Your task to perform on an android device: change alarm snooze length Image 0: 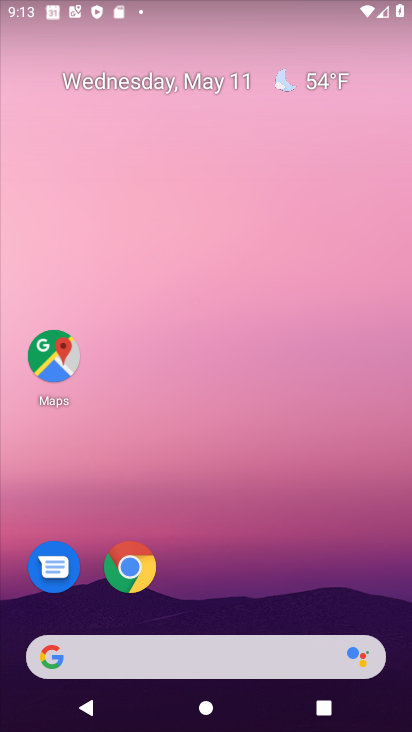
Step 0: drag from (224, 601) to (257, 187)
Your task to perform on an android device: change alarm snooze length Image 1: 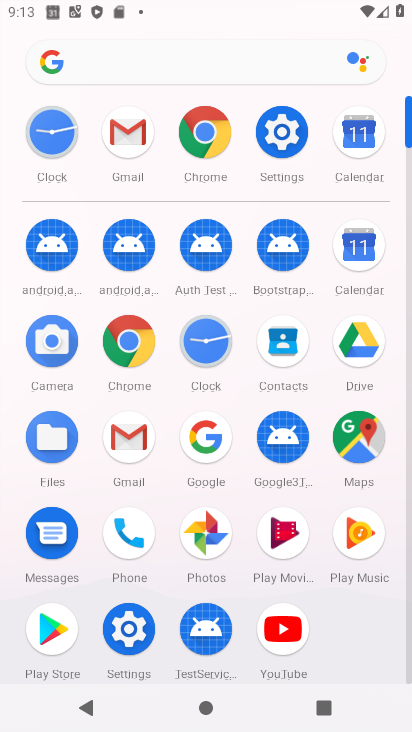
Step 1: click (214, 344)
Your task to perform on an android device: change alarm snooze length Image 2: 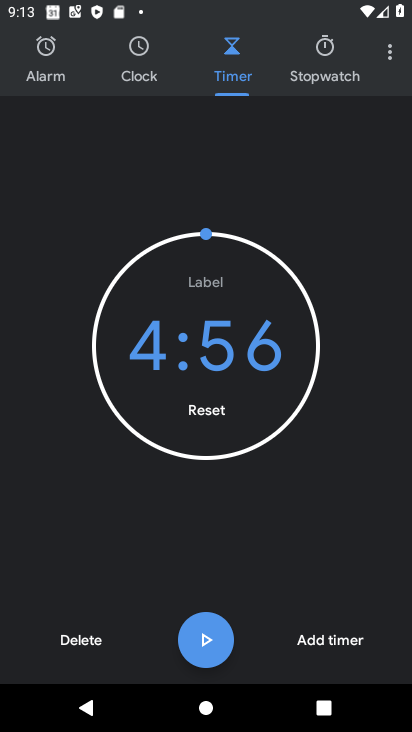
Step 2: click (383, 59)
Your task to perform on an android device: change alarm snooze length Image 3: 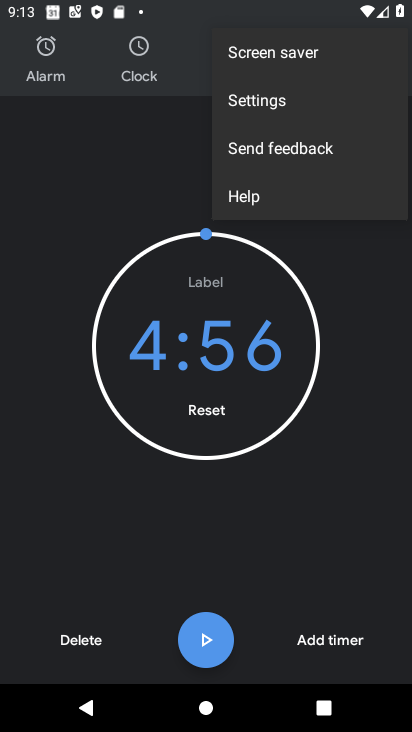
Step 3: click (258, 98)
Your task to perform on an android device: change alarm snooze length Image 4: 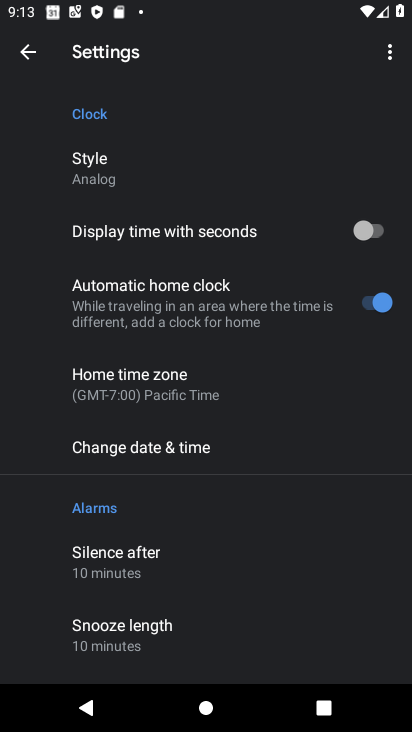
Step 4: drag from (129, 540) to (216, 254)
Your task to perform on an android device: change alarm snooze length Image 5: 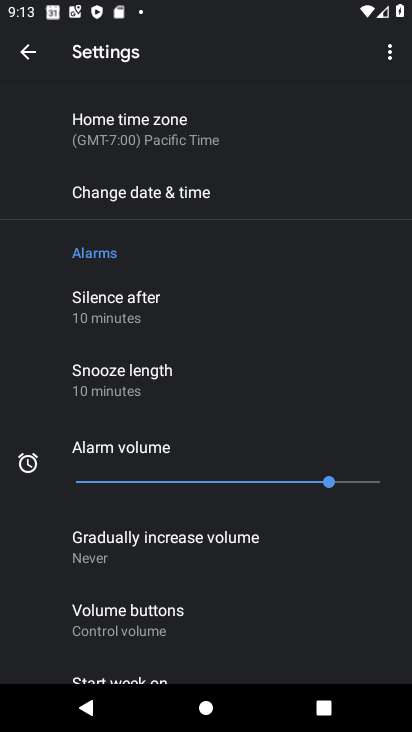
Step 5: drag from (149, 480) to (178, 381)
Your task to perform on an android device: change alarm snooze length Image 6: 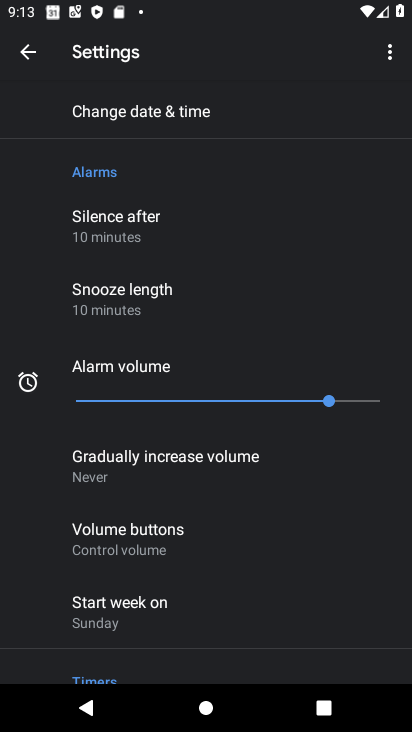
Step 6: click (120, 310)
Your task to perform on an android device: change alarm snooze length Image 7: 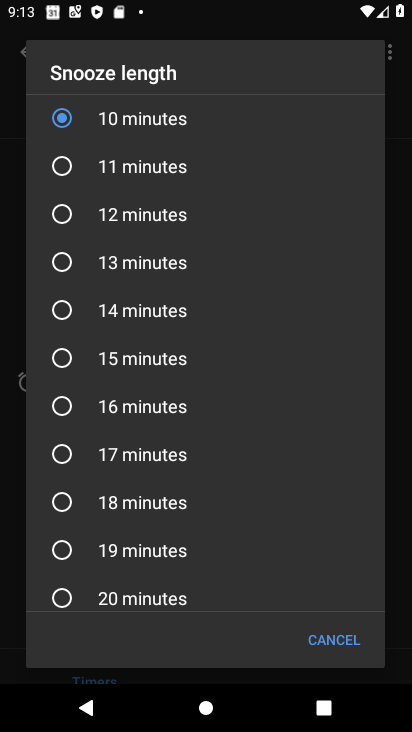
Step 7: click (53, 417)
Your task to perform on an android device: change alarm snooze length Image 8: 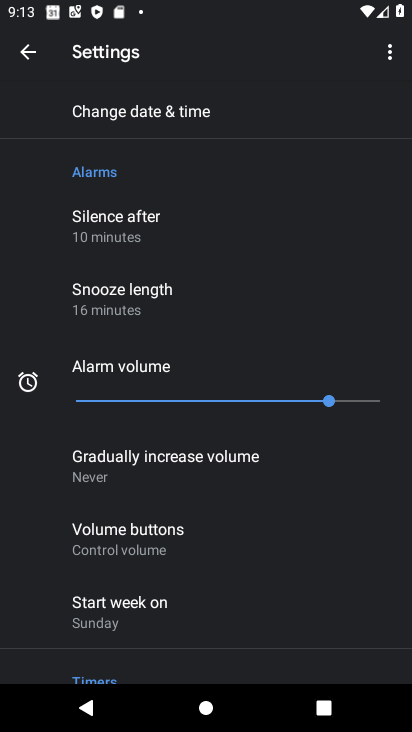
Step 8: task complete